Your task to perform on an android device: open device folders in google photos Image 0: 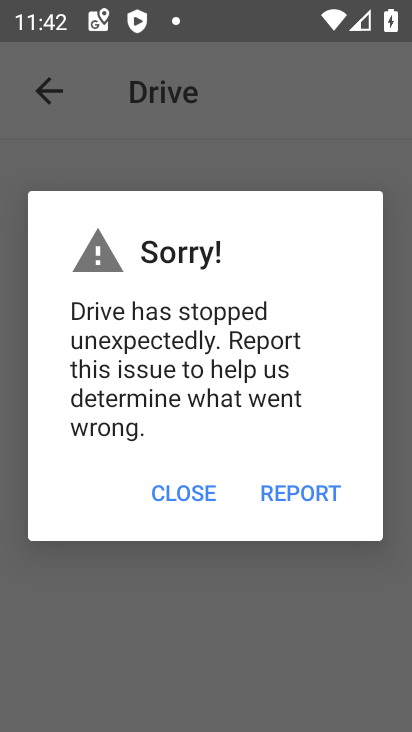
Step 0: press home button
Your task to perform on an android device: open device folders in google photos Image 1: 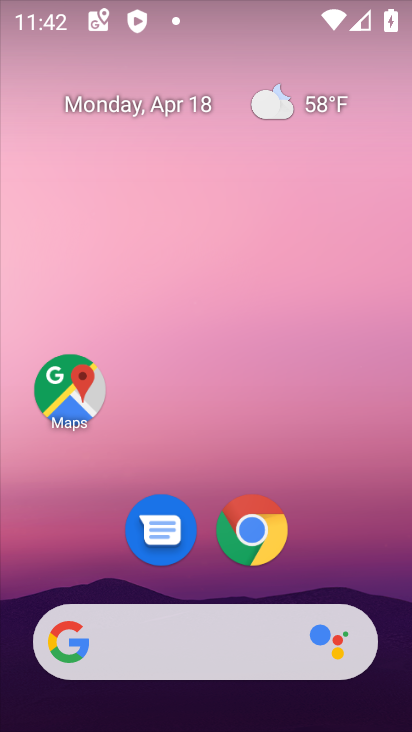
Step 1: drag from (210, 571) to (241, 158)
Your task to perform on an android device: open device folders in google photos Image 2: 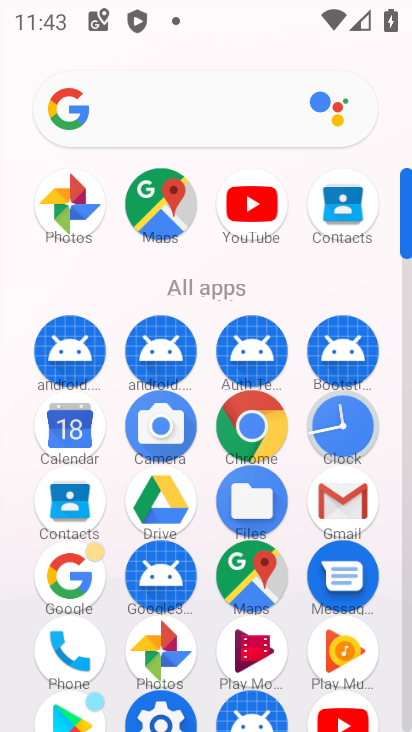
Step 2: click (70, 213)
Your task to perform on an android device: open device folders in google photos Image 3: 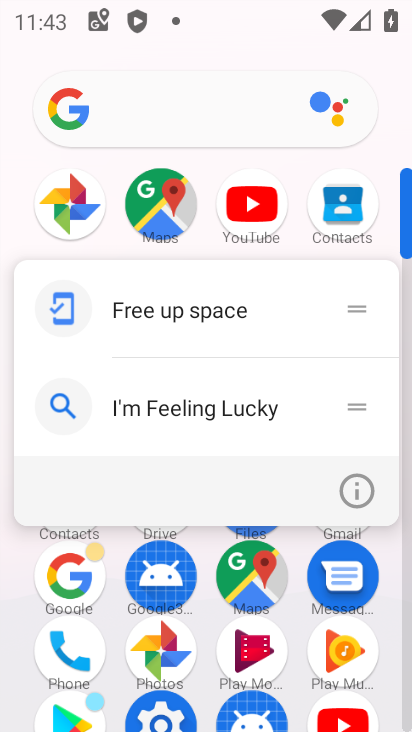
Step 3: click (69, 212)
Your task to perform on an android device: open device folders in google photos Image 4: 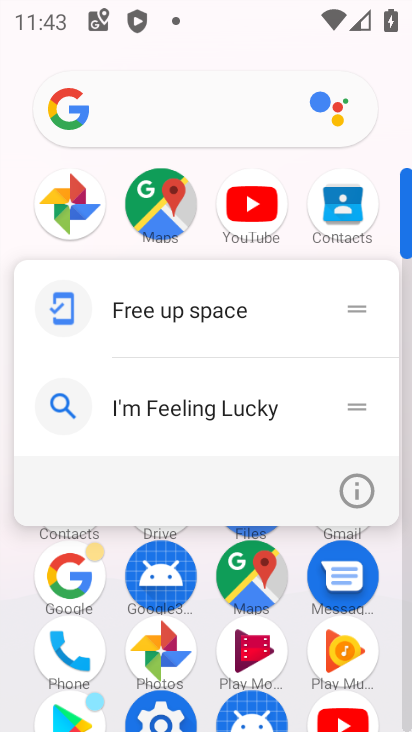
Step 4: click (73, 208)
Your task to perform on an android device: open device folders in google photos Image 5: 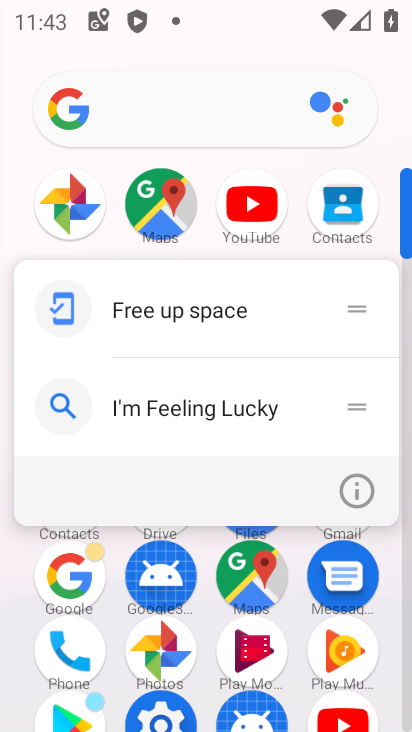
Step 5: click (73, 208)
Your task to perform on an android device: open device folders in google photos Image 6: 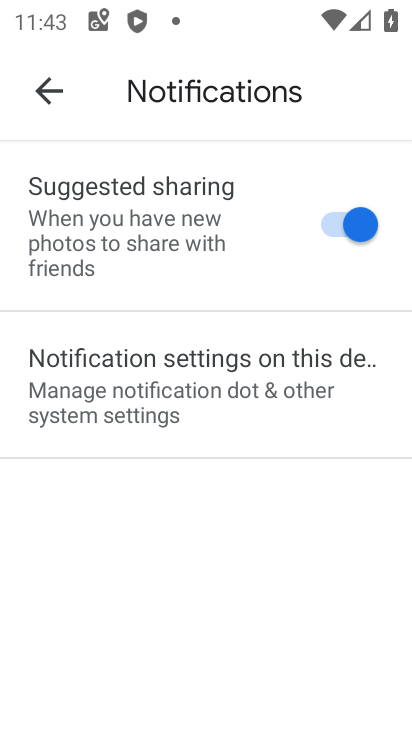
Step 6: click (39, 94)
Your task to perform on an android device: open device folders in google photos Image 7: 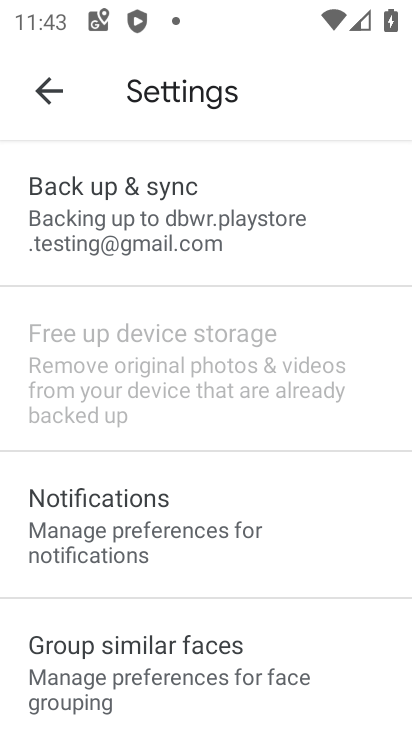
Step 7: click (50, 97)
Your task to perform on an android device: open device folders in google photos Image 8: 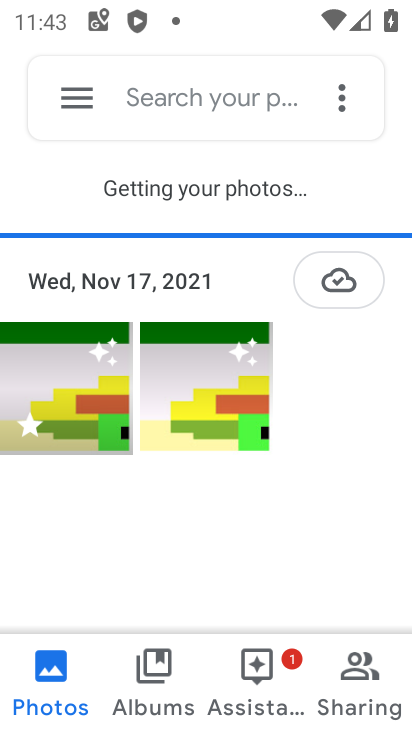
Step 8: click (77, 91)
Your task to perform on an android device: open device folders in google photos Image 9: 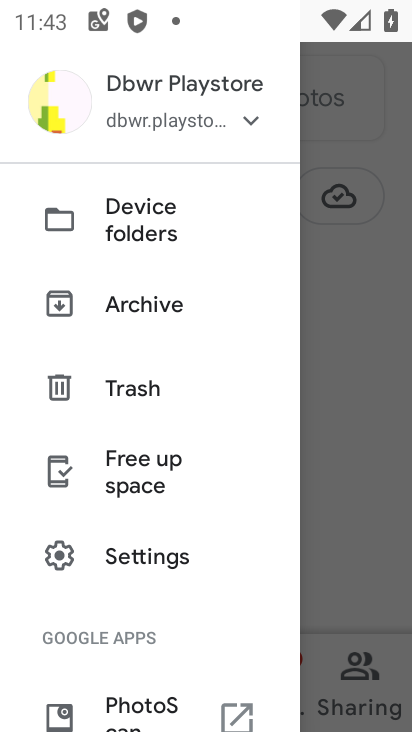
Step 9: click (121, 230)
Your task to perform on an android device: open device folders in google photos Image 10: 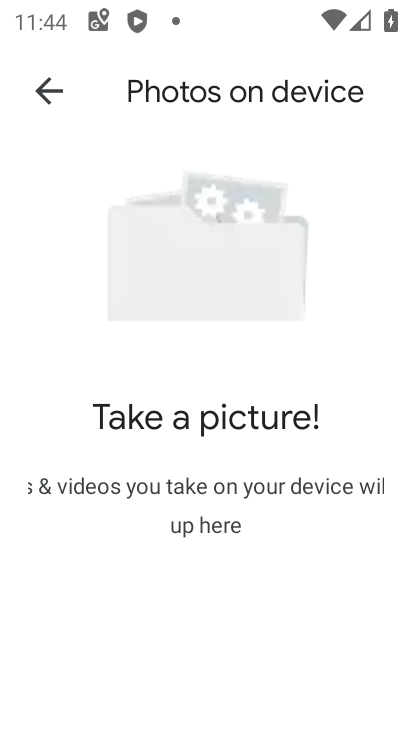
Step 10: task complete